Your task to perform on an android device: Open wifi settings Image 0: 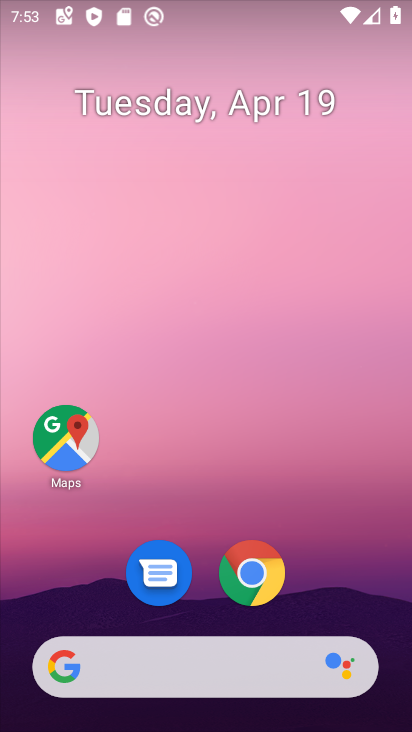
Step 0: drag from (220, 699) to (282, 95)
Your task to perform on an android device: Open wifi settings Image 1: 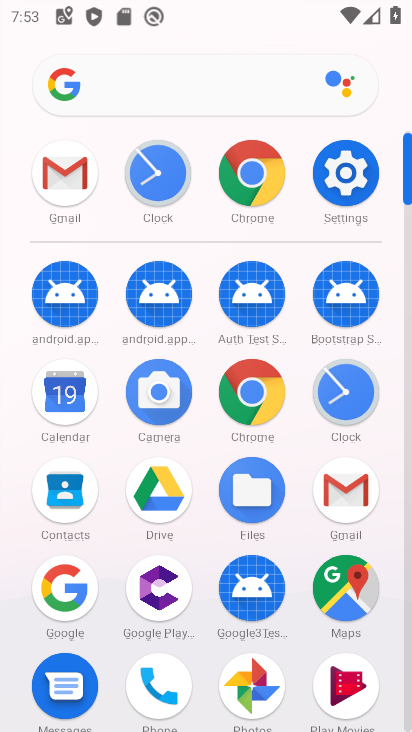
Step 1: click (342, 166)
Your task to perform on an android device: Open wifi settings Image 2: 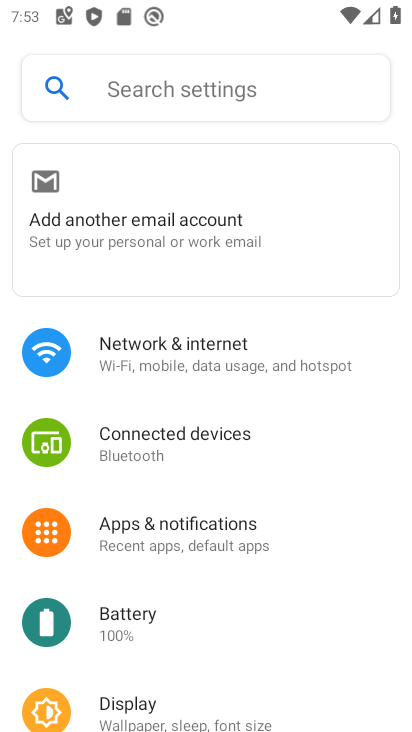
Step 2: click (177, 360)
Your task to perform on an android device: Open wifi settings Image 3: 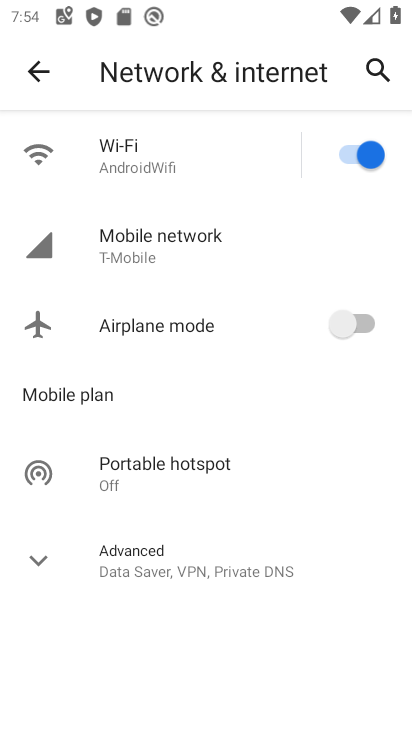
Step 3: click (175, 160)
Your task to perform on an android device: Open wifi settings Image 4: 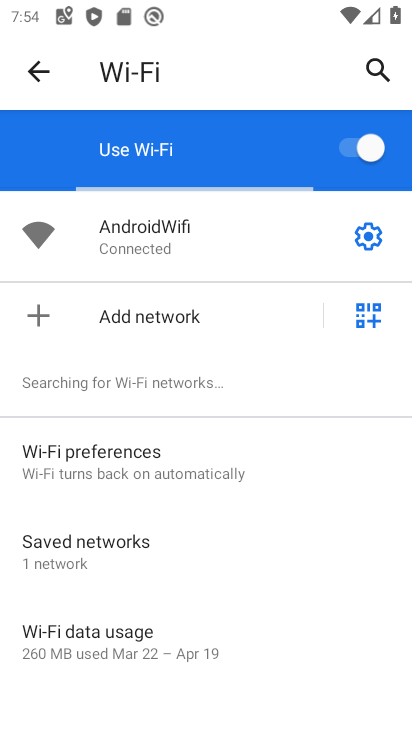
Step 4: task complete